Your task to perform on an android device: check google app version Image 0: 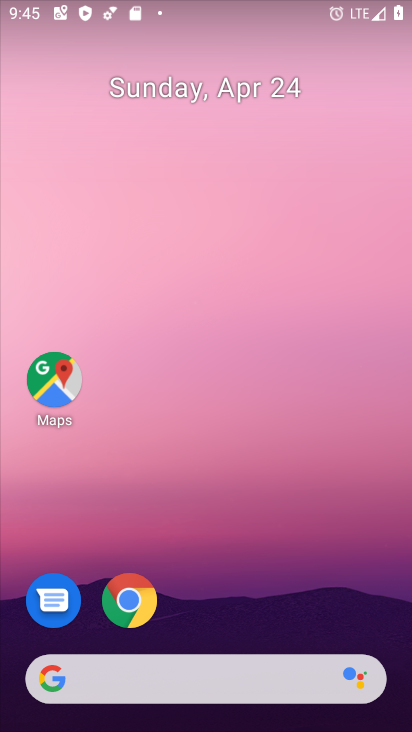
Step 0: click (48, 676)
Your task to perform on an android device: check google app version Image 1: 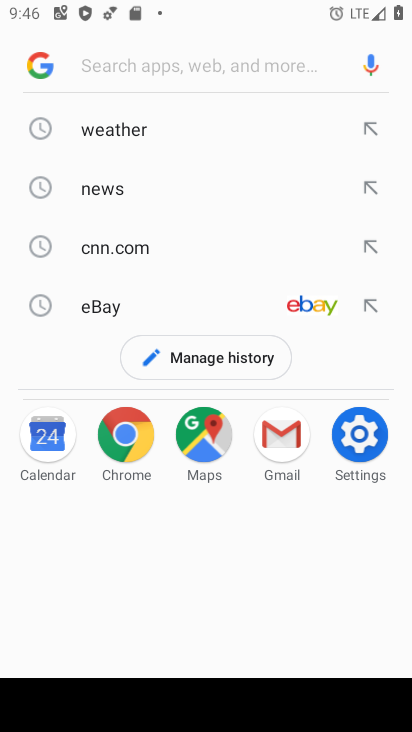
Step 1: click (32, 58)
Your task to perform on an android device: check google app version Image 2: 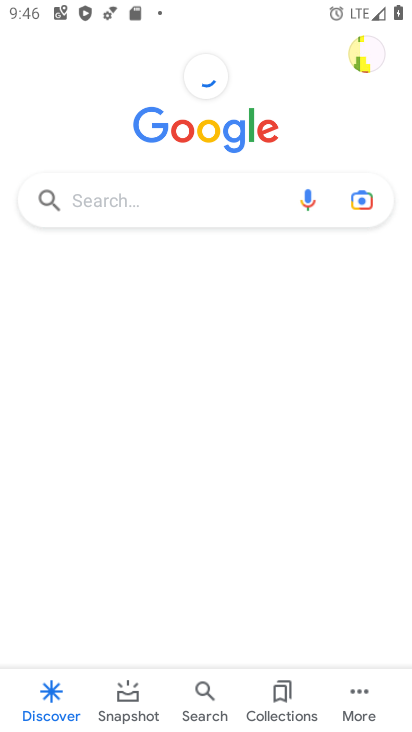
Step 2: click (354, 693)
Your task to perform on an android device: check google app version Image 3: 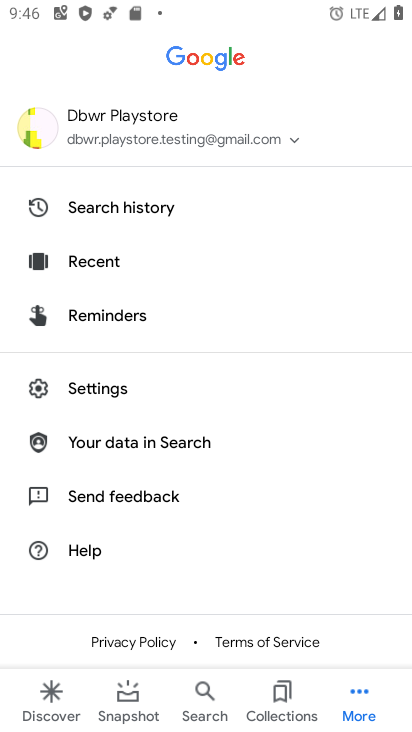
Step 3: click (93, 387)
Your task to perform on an android device: check google app version Image 4: 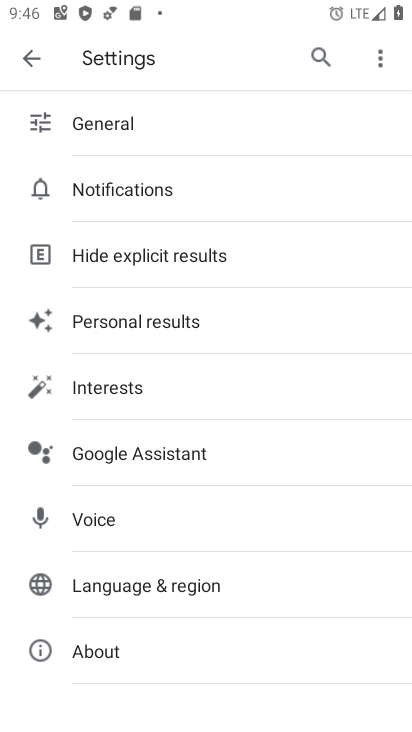
Step 4: click (117, 657)
Your task to perform on an android device: check google app version Image 5: 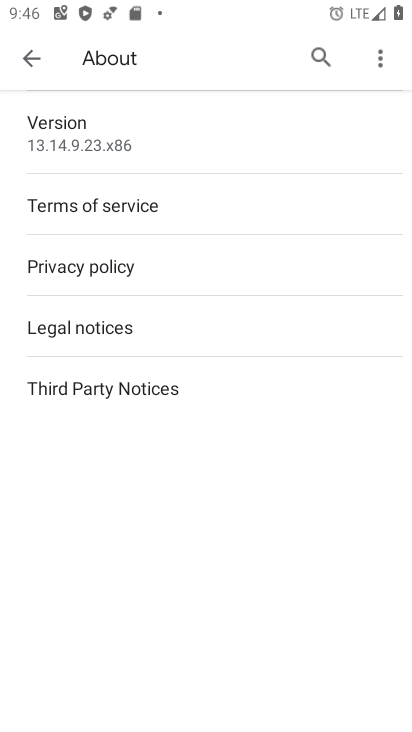
Step 5: task complete